Your task to perform on an android device: Open the calendar and show me this week's events? Image 0: 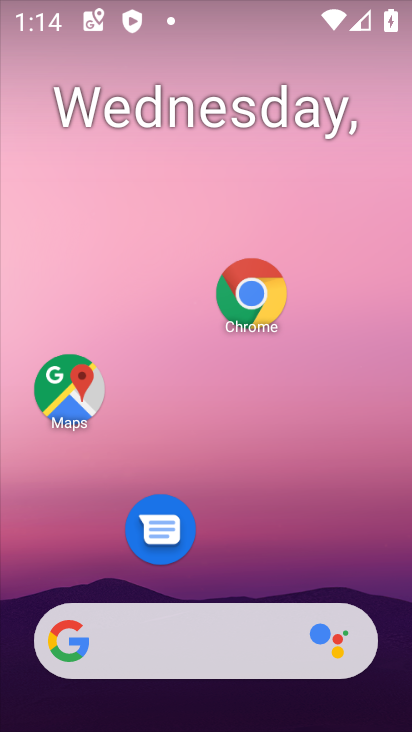
Step 0: drag from (197, 308) to (207, 253)
Your task to perform on an android device: Open the calendar and show me this week's events? Image 1: 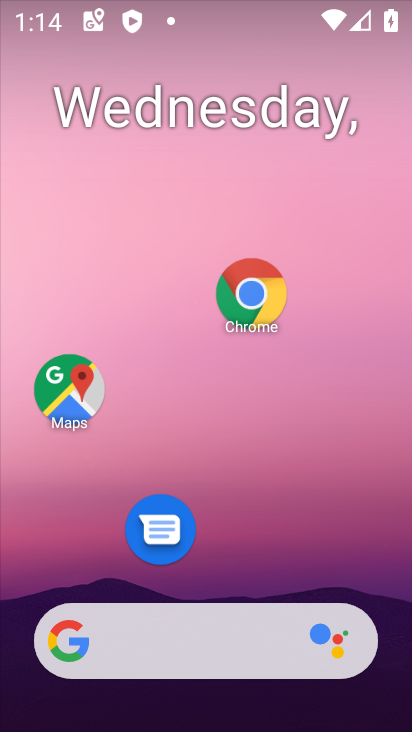
Step 1: drag from (282, 509) to (301, 243)
Your task to perform on an android device: Open the calendar and show me this week's events? Image 2: 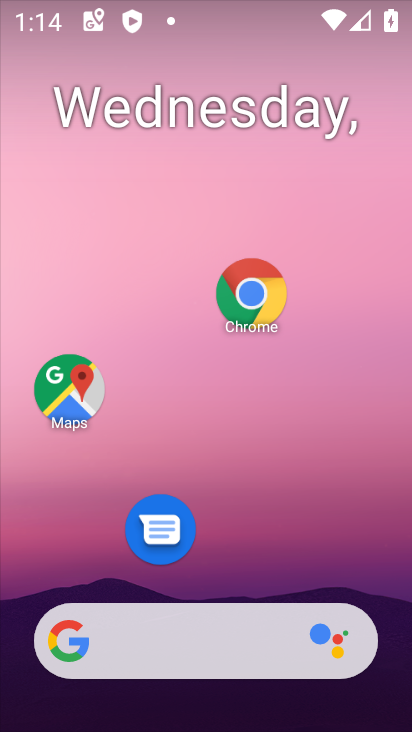
Step 2: drag from (264, 599) to (308, 112)
Your task to perform on an android device: Open the calendar and show me this week's events? Image 3: 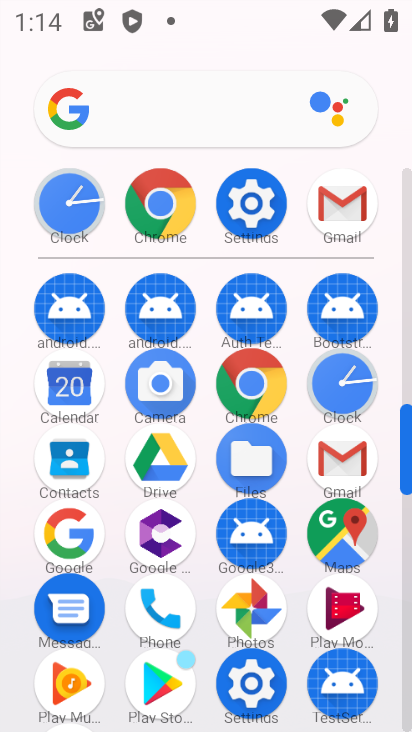
Step 3: click (83, 395)
Your task to perform on an android device: Open the calendar and show me this week's events? Image 4: 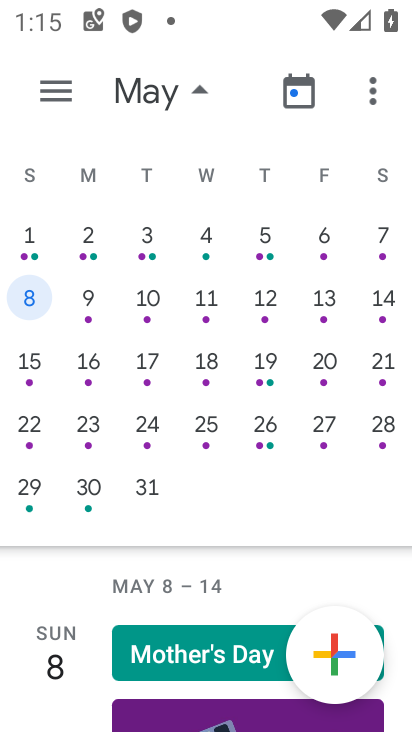
Step 4: drag from (92, 426) to (408, 343)
Your task to perform on an android device: Open the calendar and show me this week's events? Image 5: 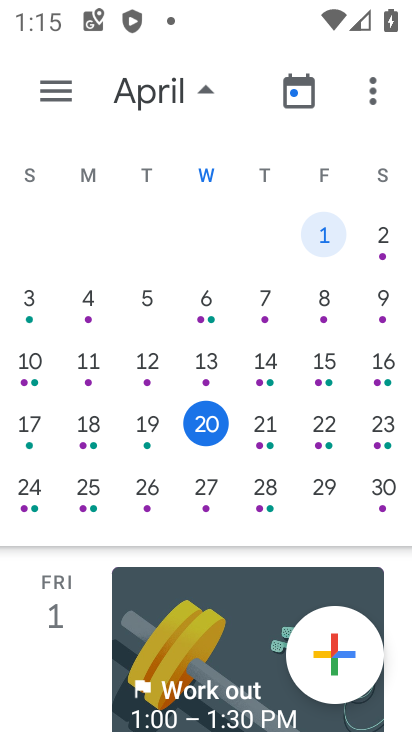
Step 5: drag from (178, 576) to (187, 458)
Your task to perform on an android device: Open the calendar and show me this week's events? Image 6: 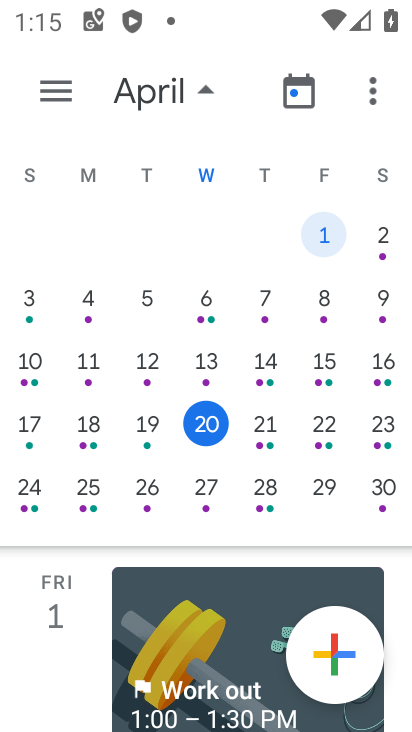
Step 6: click (189, 433)
Your task to perform on an android device: Open the calendar and show me this week's events? Image 7: 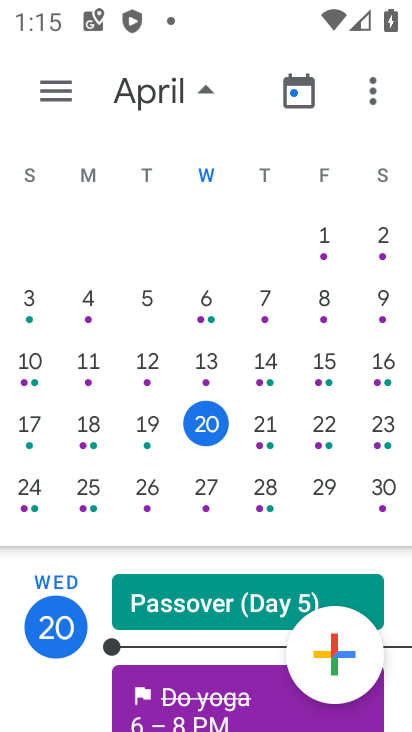
Step 7: task complete